Your task to perform on an android device: Open Chrome and go to the settings page Image 0: 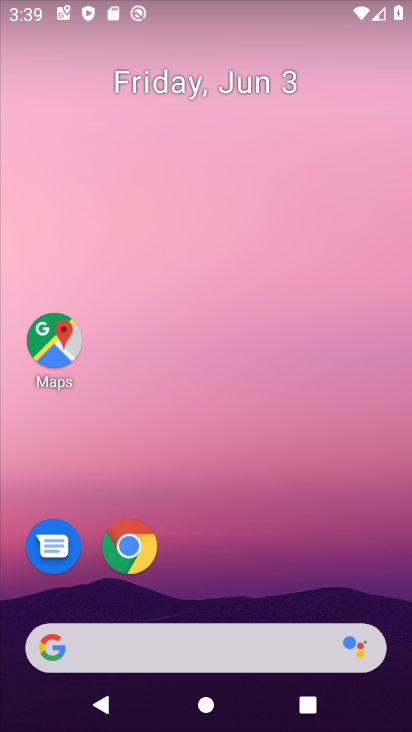
Step 0: click (134, 540)
Your task to perform on an android device: Open Chrome and go to the settings page Image 1: 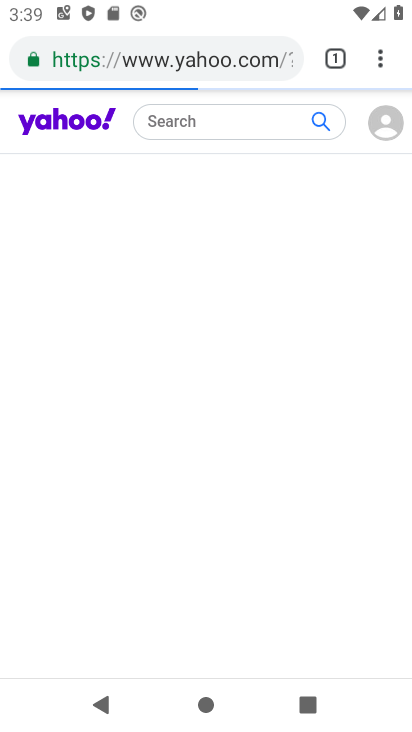
Step 1: click (372, 56)
Your task to perform on an android device: Open Chrome and go to the settings page Image 2: 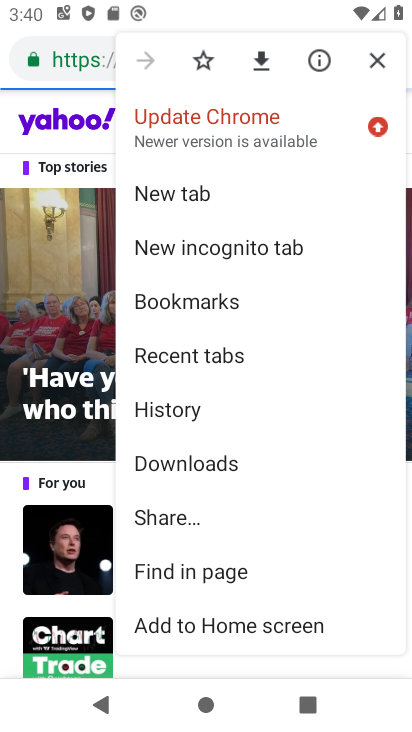
Step 2: drag from (221, 557) to (249, 402)
Your task to perform on an android device: Open Chrome and go to the settings page Image 3: 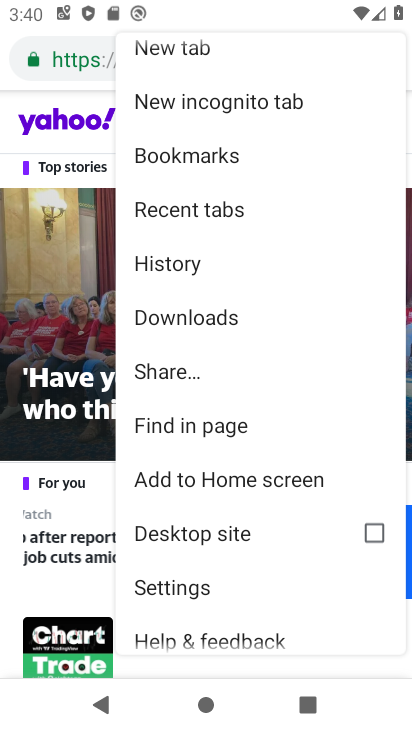
Step 3: click (209, 587)
Your task to perform on an android device: Open Chrome and go to the settings page Image 4: 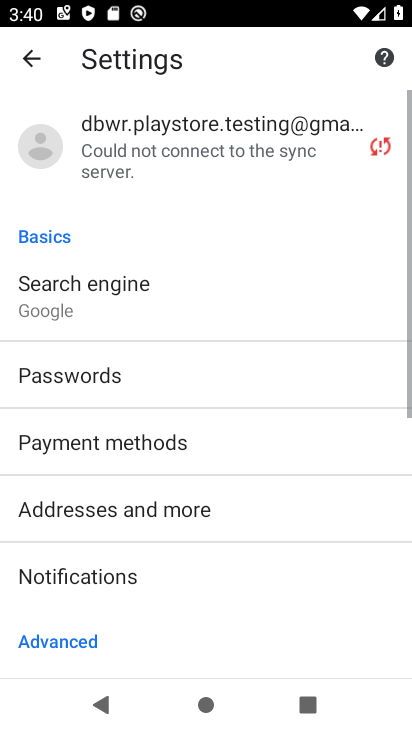
Step 4: task complete